Your task to perform on an android device: turn on notifications settings in the gmail app Image 0: 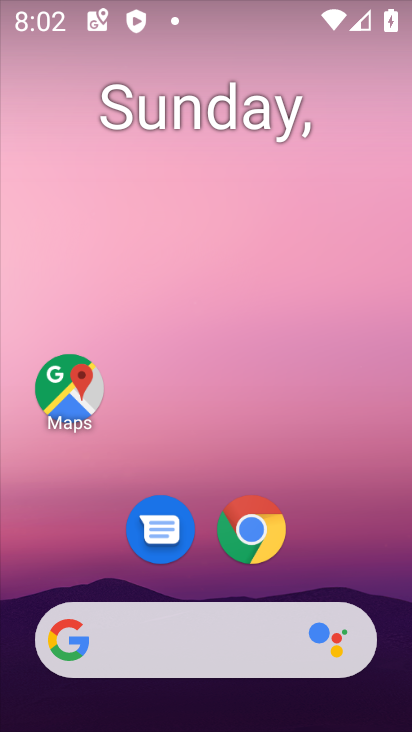
Step 0: press home button
Your task to perform on an android device: turn on notifications settings in the gmail app Image 1: 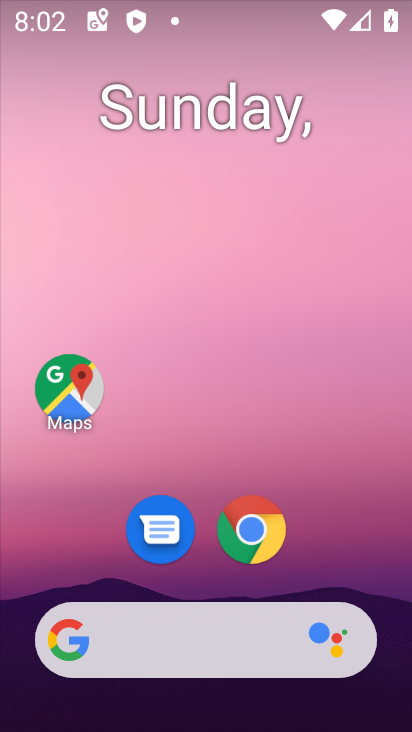
Step 1: drag from (340, 551) to (375, 127)
Your task to perform on an android device: turn on notifications settings in the gmail app Image 2: 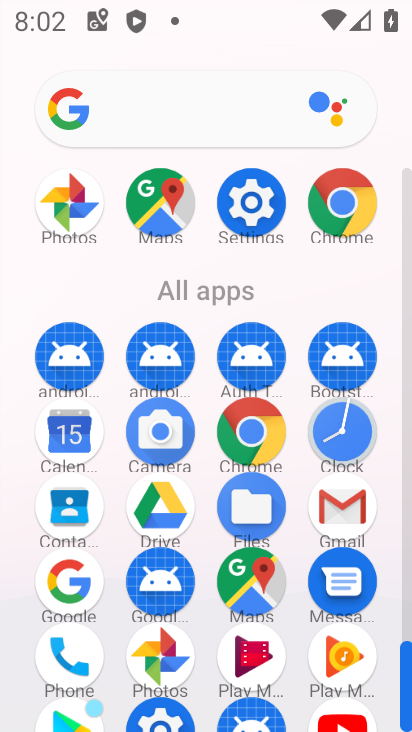
Step 2: click (351, 518)
Your task to perform on an android device: turn on notifications settings in the gmail app Image 3: 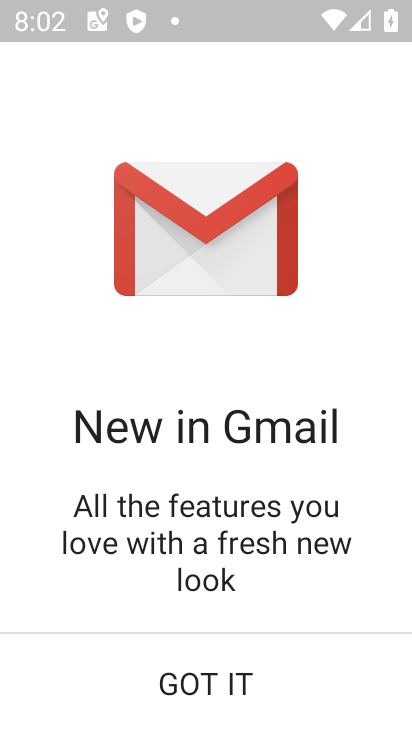
Step 3: click (242, 683)
Your task to perform on an android device: turn on notifications settings in the gmail app Image 4: 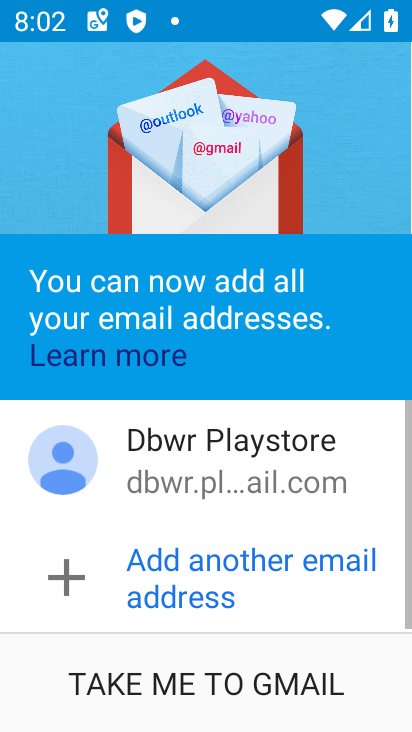
Step 4: click (242, 684)
Your task to perform on an android device: turn on notifications settings in the gmail app Image 5: 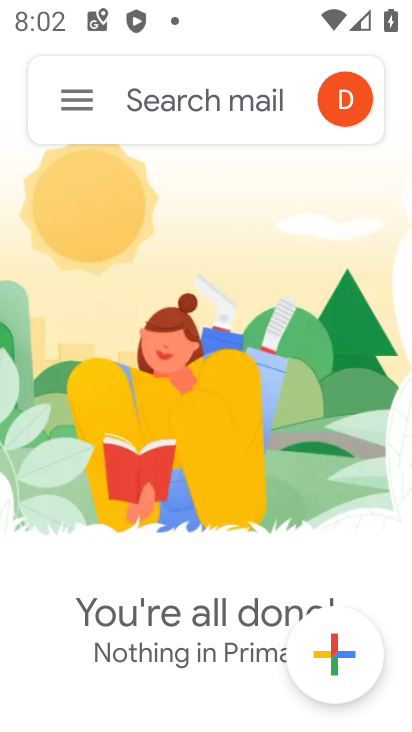
Step 5: click (86, 111)
Your task to perform on an android device: turn on notifications settings in the gmail app Image 6: 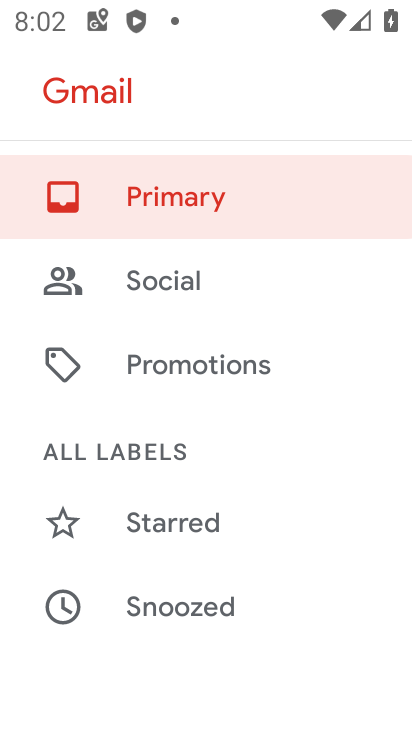
Step 6: drag from (240, 564) to (257, 251)
Your task to perform on an android device: turn on notifications settings in the gmail app Image 7: 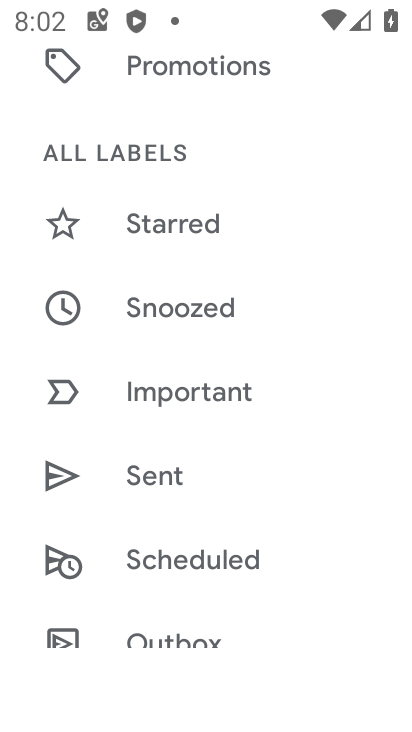
Step 7: drag from (254, 605) to (289, 271)
Your task to perform on an android device: turn on notifications settings in the gmail app Image 8: 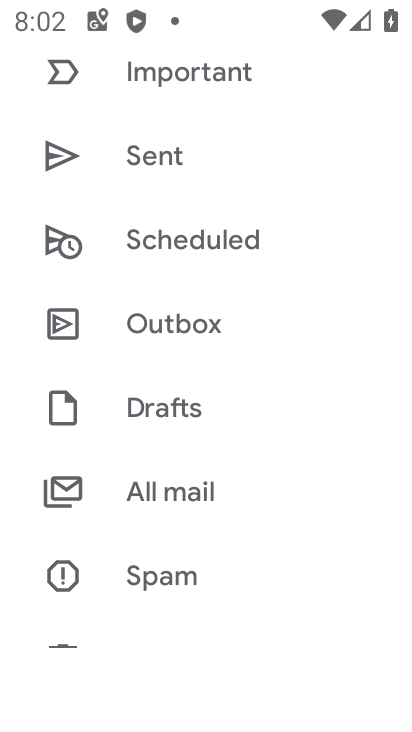
Step 8: drag from (233, 555) to (294, 178)
Your task to perform on an android device: turn on notifications settings in the gmail app Image 9: 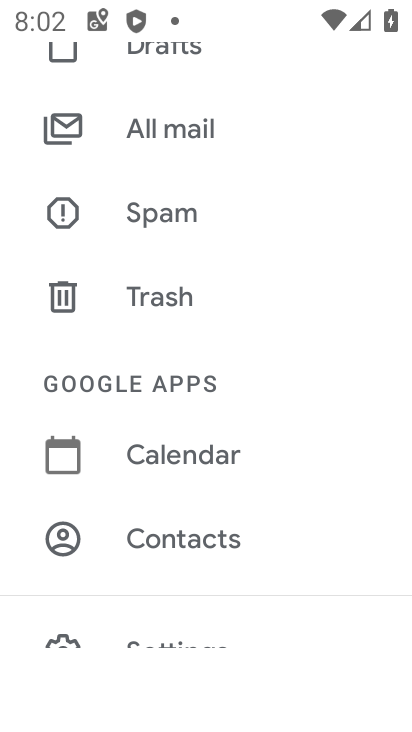
Step 9: drag from (237, 517) to (280, 250)
Your task to perform on an android device: turn on notifications settings in the gmail app Image 10: 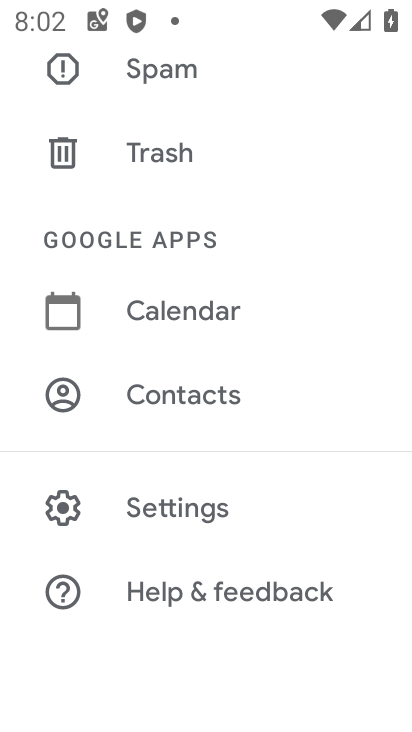
Step 10: click (174, 501)
Your task to perform on an android device: turn on notifications settings in the gmail app Image 11: 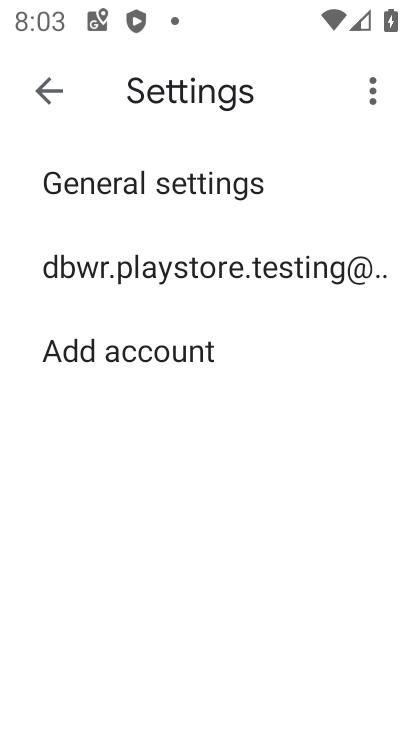
Step 11: click (231, 268)
Your task to perform on an android device: turn on notifications settings in the gmail app Image 12: 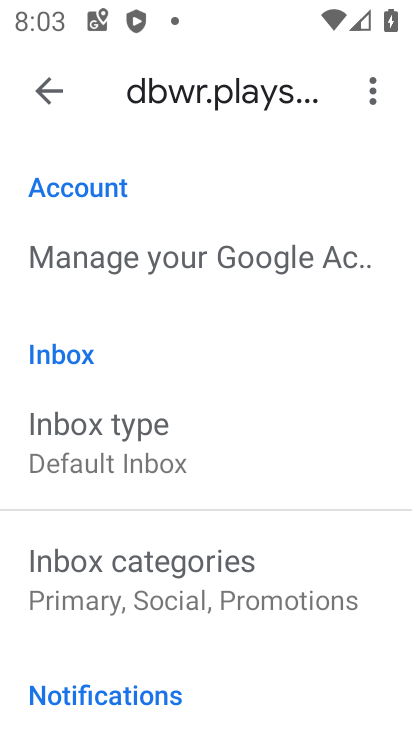
Step 12: task complete